Your task to perform on an android device: open app "Walmart Shopping & Grocery" (install if not already installed), go to login, and select forgot password Image 0: 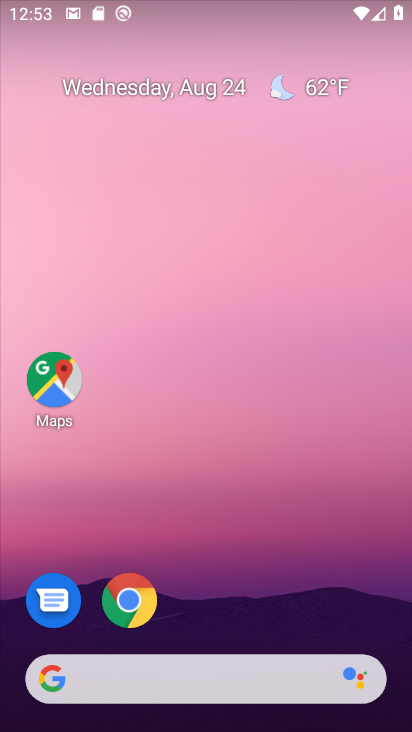
Step 0: press home button
Your task to perform on an android device: open app "Walmart Shopping & Grocery" (install if not already installed), go to login, and select forgot password Image 1: 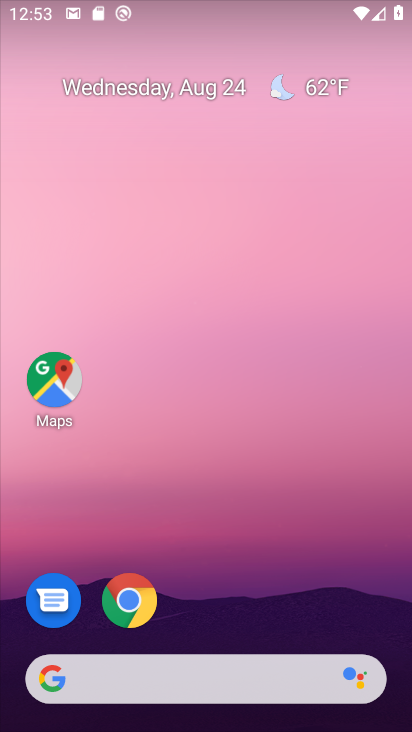
Step 1: drag from (240, 632) to (205, 72)
Your task to perform on an android device: open app "Walmart Shopping & Grocery" (install if not already installed), go to login, and select forgot password Image 2: 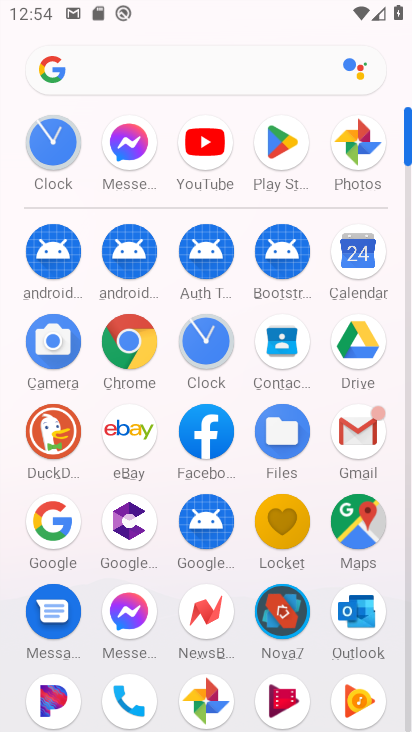
Step 2: click (283, 145)
Your task to perform on an android device: open app "Walmart Shopping & Grocery" (install if not already installed), go to login, and select forgot password Image 3: 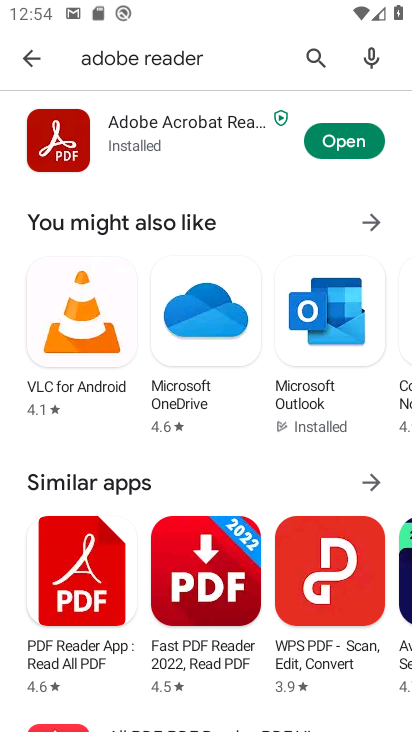
Step 3: click (322, 63)
Your task to perform on an android device: open app "Walmart Shopping & Grocery" (install if not already installed), go to login, and select forgot password Image 4: 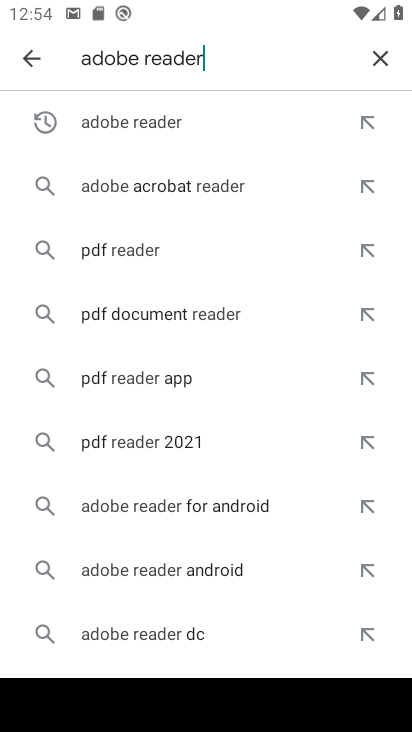
Step 4: click (381, 60)
Your task to perform on an android device: open app "Walmart Shopping & Grocery" (install if not already installed), go to login, and select forgot password Image 5: 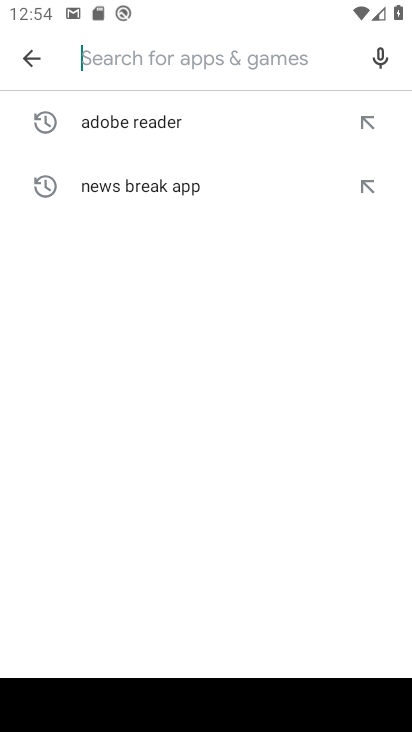
Step 5: type "walmart"
Your task to perform on an android device: open app "Walmart Shopping & Grocery" (install if not already installed), go to login, and select forgot password Image 6: 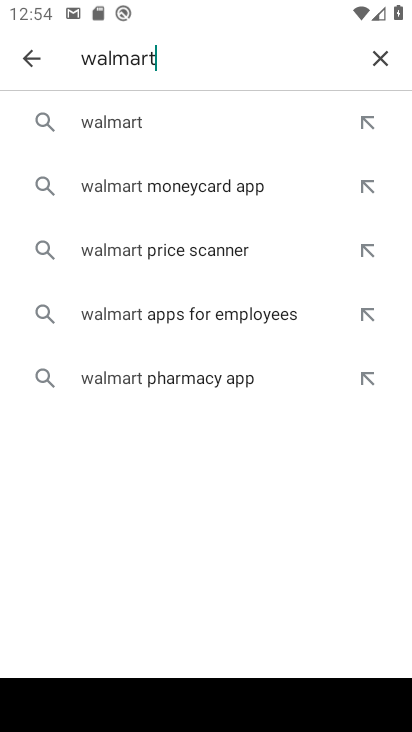
Step 6: click (180, 124)
Your task to perform on an android device: open app "Walmart Shopping & Grocery" (install if not already installed), go to login, and select forgot password Image 7: 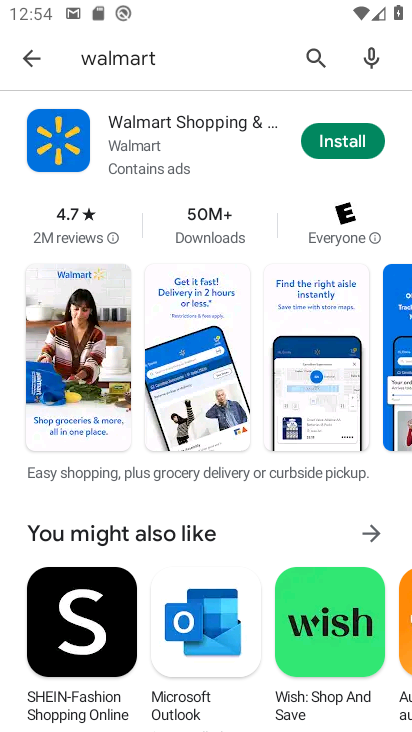
Step 7: click (346, 140)
Your task to perform on an android device: open app "Walmart Shopping & Grocery" (install if not already installed), go to login, and select forgot password Image 8: 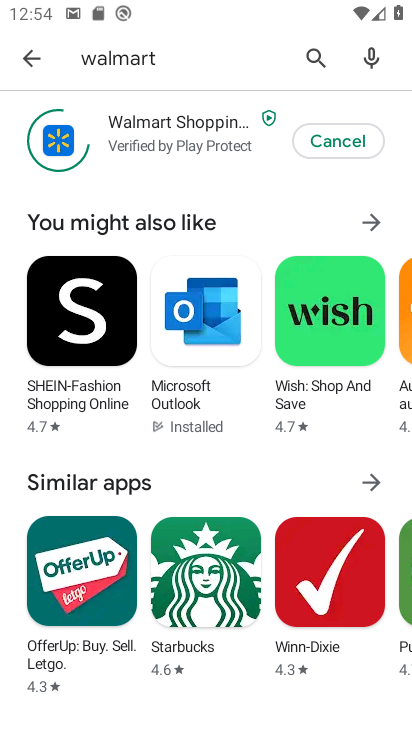
Step 8: task complete